Your task to perform on an android device: add a contact in the contacts app Image 0: 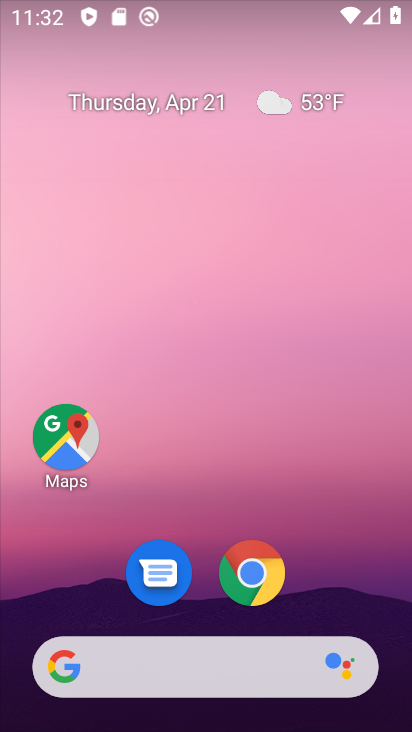
Step 0: drag from (184, 599) to (317, 178)
Your task to perform on an android device: add a contact in the contacts app Image 1: 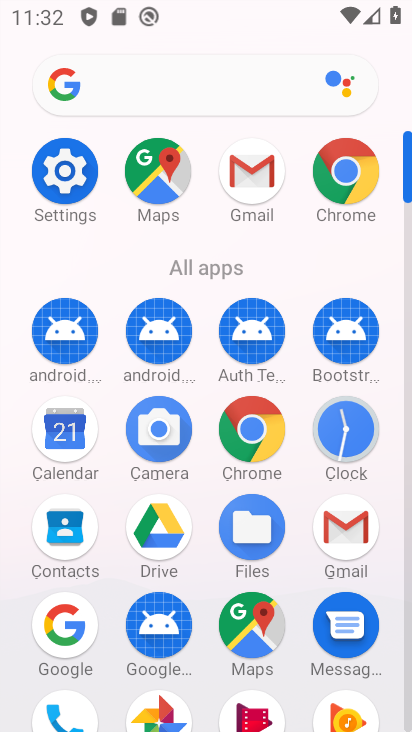
Step 1: click (59, 544)
Your task to perform on an android device: add a contact in the contacts app Image 2: 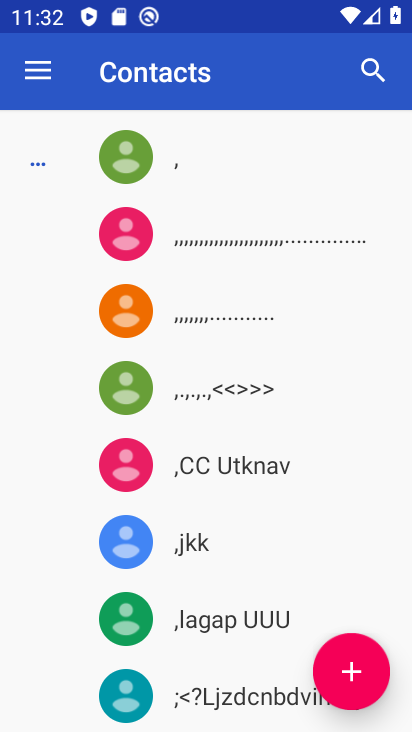
Step 2: click (355, 665)
Your task to perform on an android device: add a contact in the contacts app Image 3: 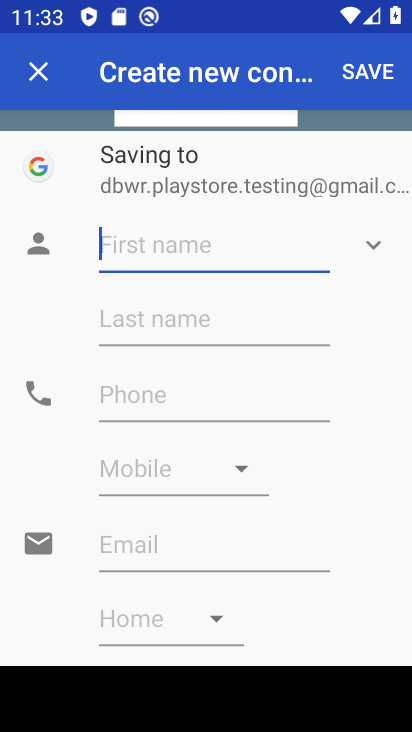
Step 3: type "maytgrhf"
Your task to perform on an android device: add a contact in the contacts app Image 4: 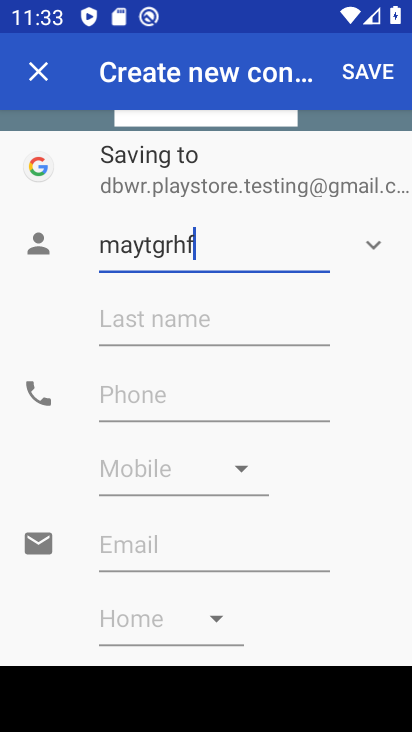
Step 4: click (128, 398)
Your task to perform on an android device: add a contact in the contacts app Image 5: 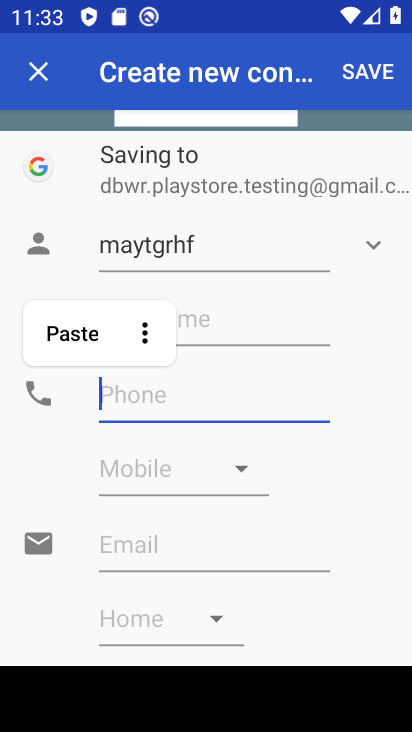
Step 5: type "37647860923"
Your task to perform on an android device: add a contact in the contacts app Image 6: 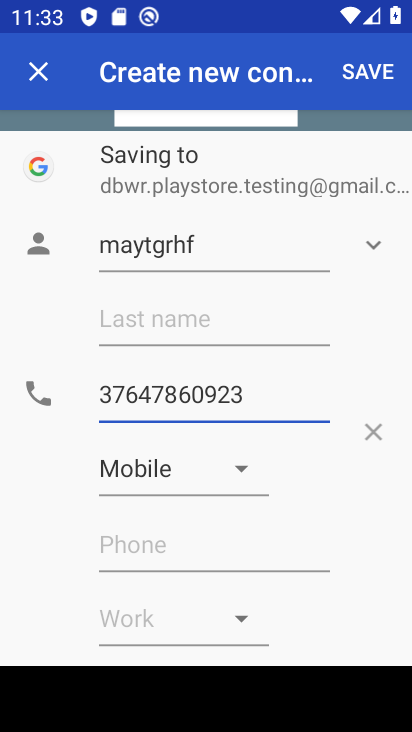
Step 6: click (368, 70)
Your task to perform on an android device: add a contact in the contacts app Image 7: 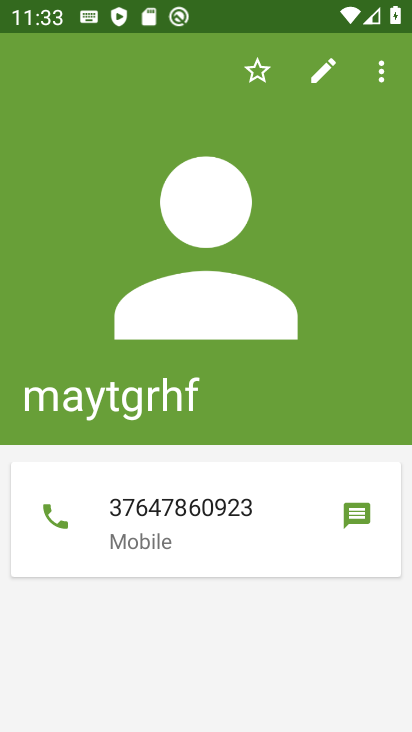
Step 7: task complete